Your task to perform on an android device: turn off smart reply in the gmail app Image 0: 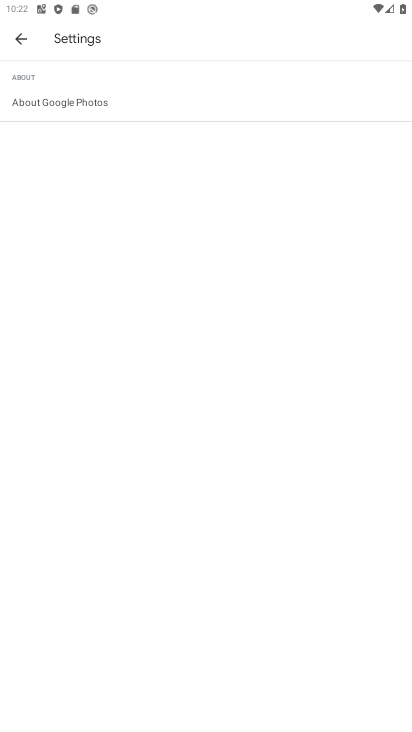
Step 0: press home button
Your task to perform on an android device: turn off smart reply in the gmail app Image 1: 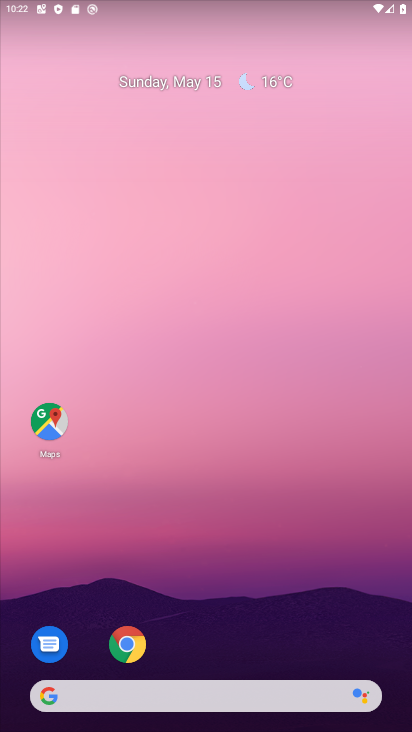
Step 1: drag from (275, 649) to (236, 24)
Your task to perform on an android device: turn off smart reply in the gmail app Image 2: 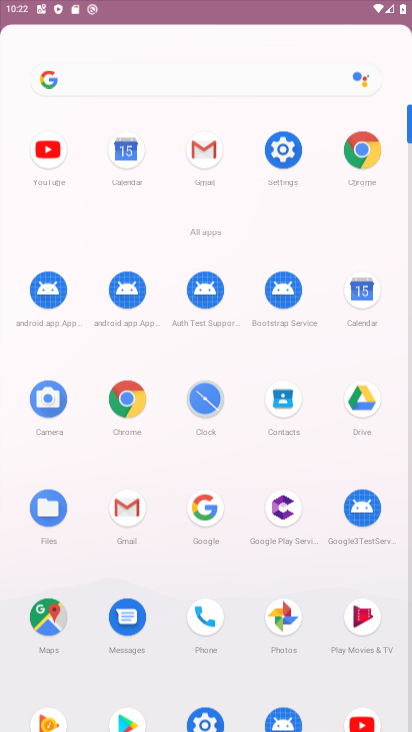
Step 2: click (236, 23)
Your task to perform on an android device: turn off smart reply in the gmail app Image 3: 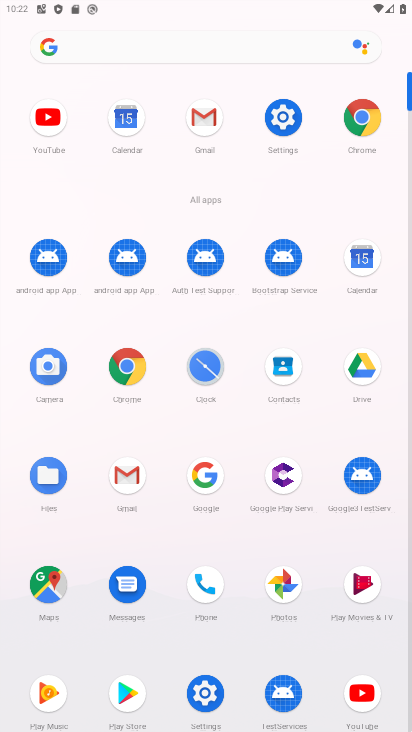
Step 3: click (136, 481)
Your task to perform on an android device: turn off smart reply in the gmail app Image 4: 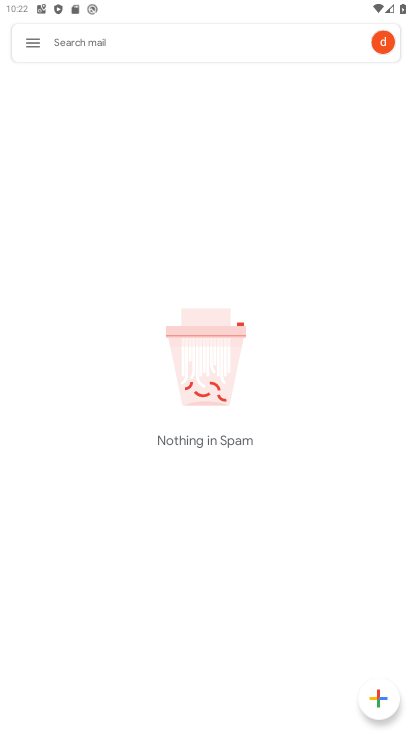
Step 4: click (34, 37)
Your task to perform on an android device: turn off smart reply in the gmail app Image 5: 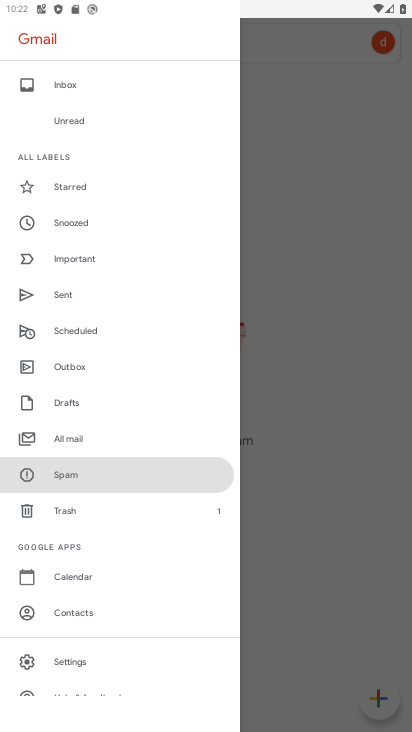
Step 5: click (81, 653)
Your task to perform on an android device: turn off smart reply in the gmail app Image 6: 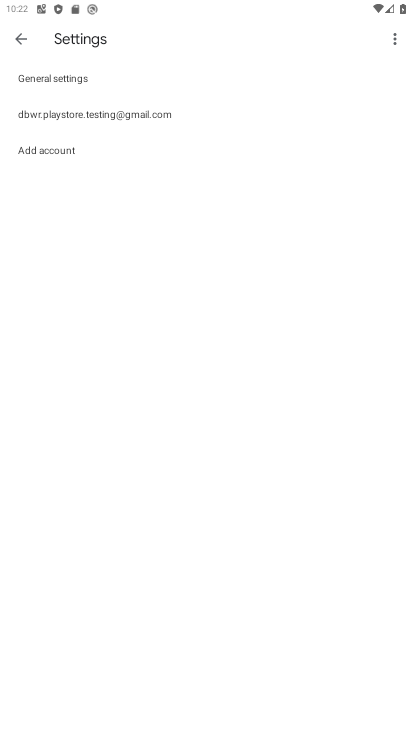
Step 6: click (80, 108)
Your task to perform on an android device: turn off smart reply in the gmail app Image 7: 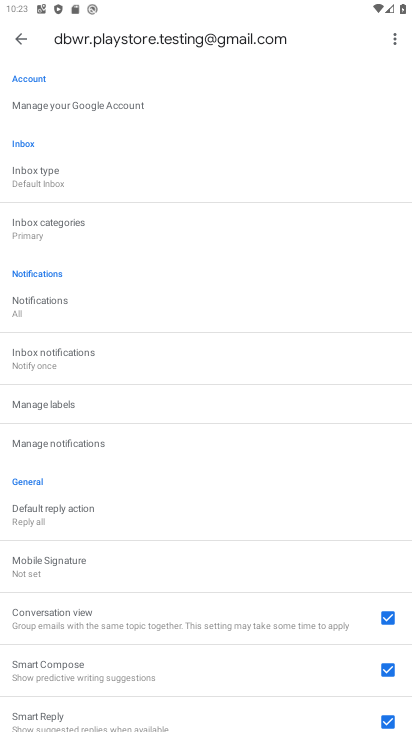
Step 7: drag from (291, 663) to (272, 481)
Your task to perform on an android device: turn off smart reply in the gmail app Image 8: 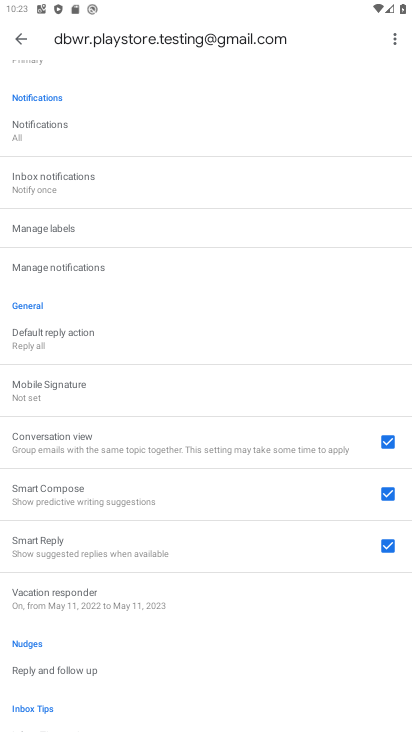
Step 8: click (393, 552)
Your task to perform on an android device: turn off smart reply in the gmail app Image 9: 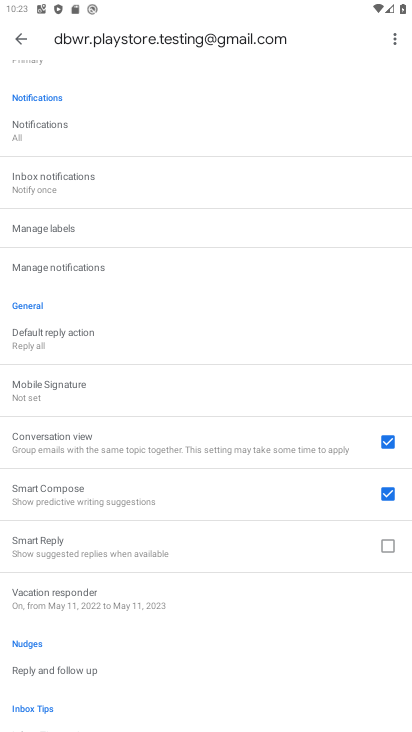
Step 9: task complete